Your task to perform on an android device: turn on showing notifications on the lock screen Image 0: 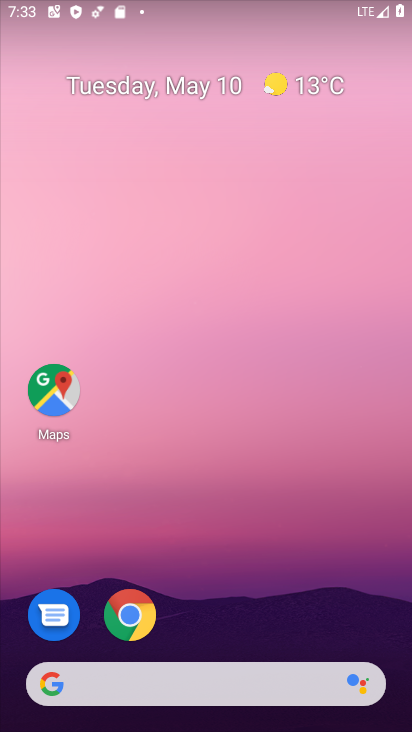
Step 0: drag from (283, 591) to (348, 18)
Your task to perform on an android device: turn on showing notifications on the lock screen Image 1: 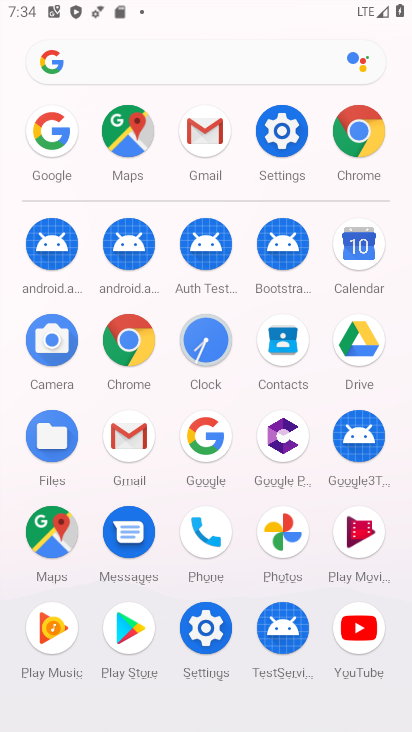
Step 1: click (275, 130)
Your task to perform on an android device: turn on showing notifications on the lock screen Image 2: 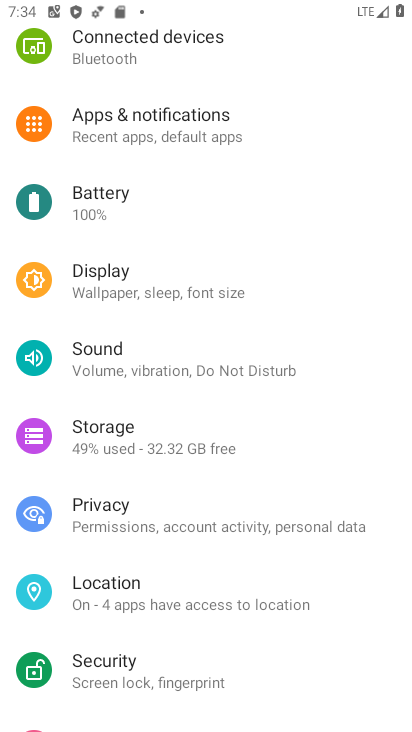
Step 2: click (187, 138)
Your task to perform on an android device: turn on showing notifications on the lock screen Image 3: 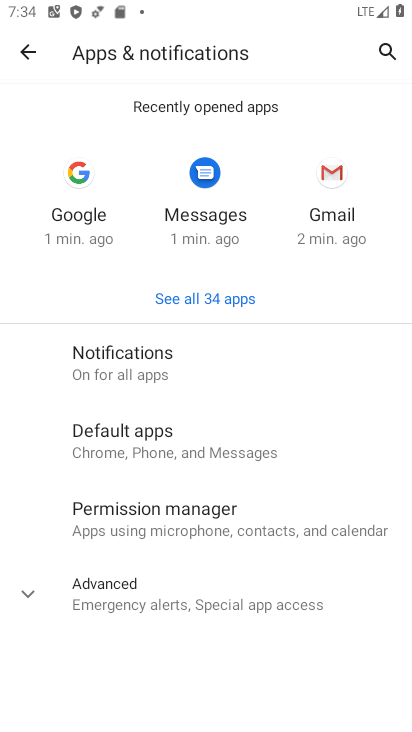
Step 3: click (107, 349)
Your task to perform on an android device: turn on showing notifications on the lock screen Image 4: 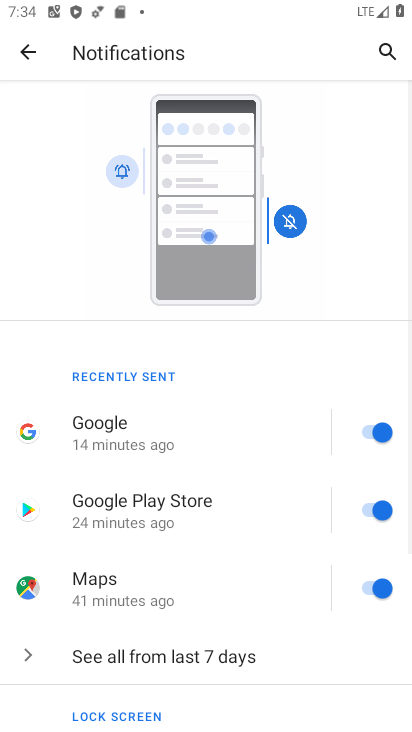
Step 4: drag from (170, 581) to (250, 103)
Your task to perform on an android device: turn on showing notifications on the lock screen Image 5: 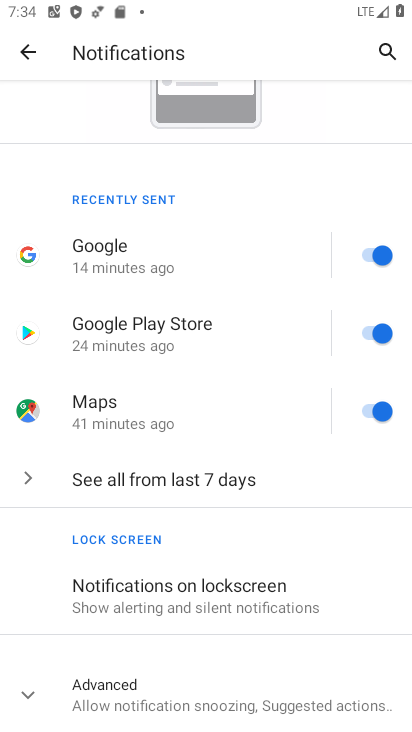
Step 5: click (180, 589)
Your task to perform on an android device: turn on showing notifications on the lock screen Image 6: 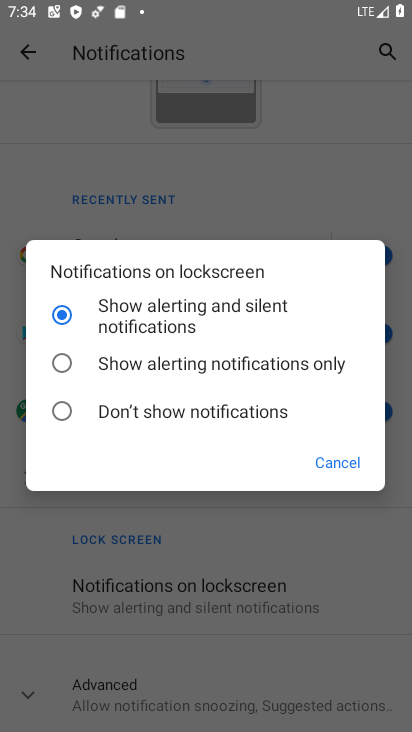
Step 6: click (70, 361)
Your task to perform on an android device: turn on showing notifications on the lock screen Image 7: 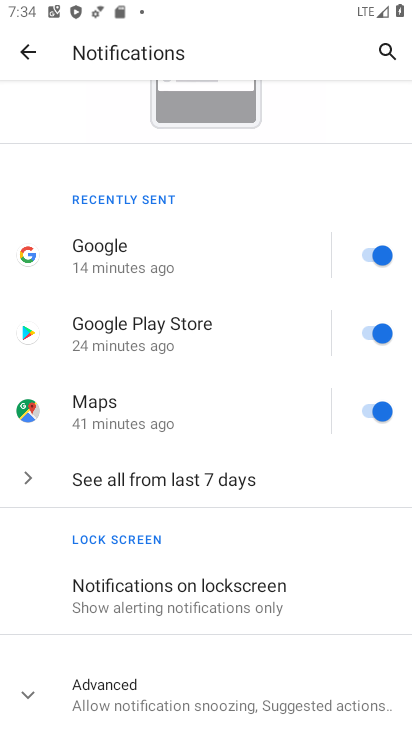
Step 7: task complete